Your task to perform on an android device: see creations saved in the google photos Image 0: 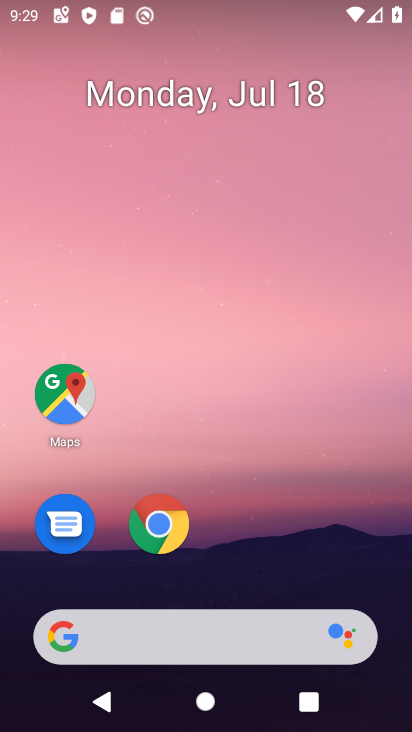
Step 0: drag from (269, 532) to (259, 48)
Your task to perform on an android device: see creations saved in the google photos Image 1: 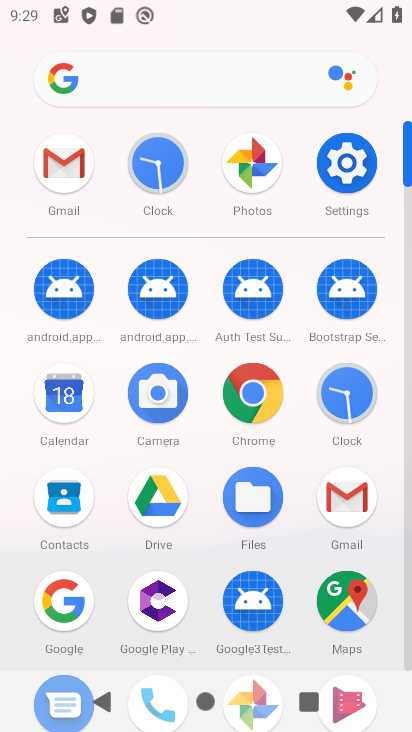
Step 1: click (252, 159)
Your task to perform on an android device: see creations saved in the google photos Image 2: 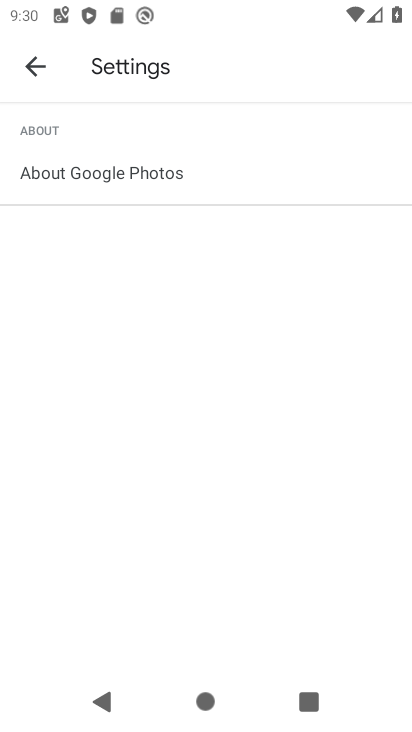
Step 2: click (38, 62)
Your task to perform on an android device: see creations saved in the google photos Image 3: 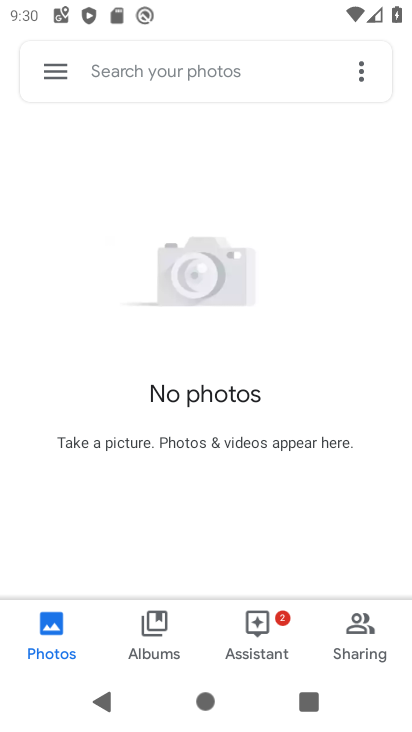
Step 3: click (163, 71)
Your task to perform on an android device: see creations saved in the google photos Image 4: 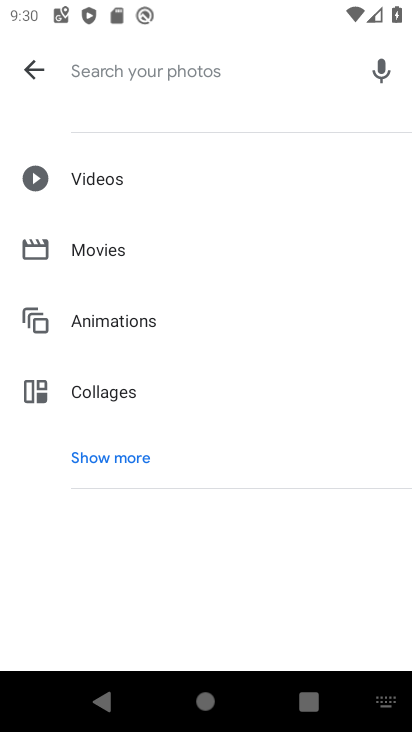
Step 4: click (105, 454)
Your task to perform on an android device: see creations saved in the google photos Image 5: 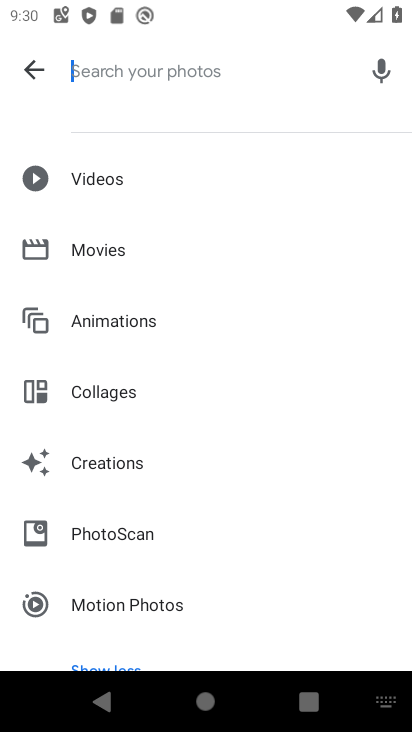
Step 5: click (105, 454)
Your task to perform on an android device: see creations saved in the google photos Image 6: 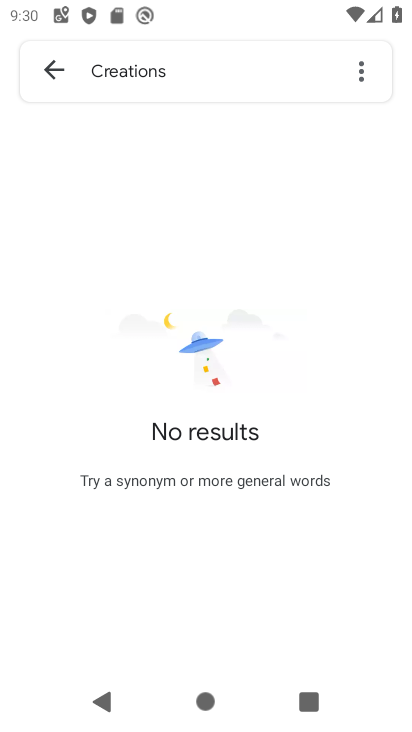
Step 6: task complete